Your task to perform on an android device: Open Youtube and go to "Your channel" Image 0: 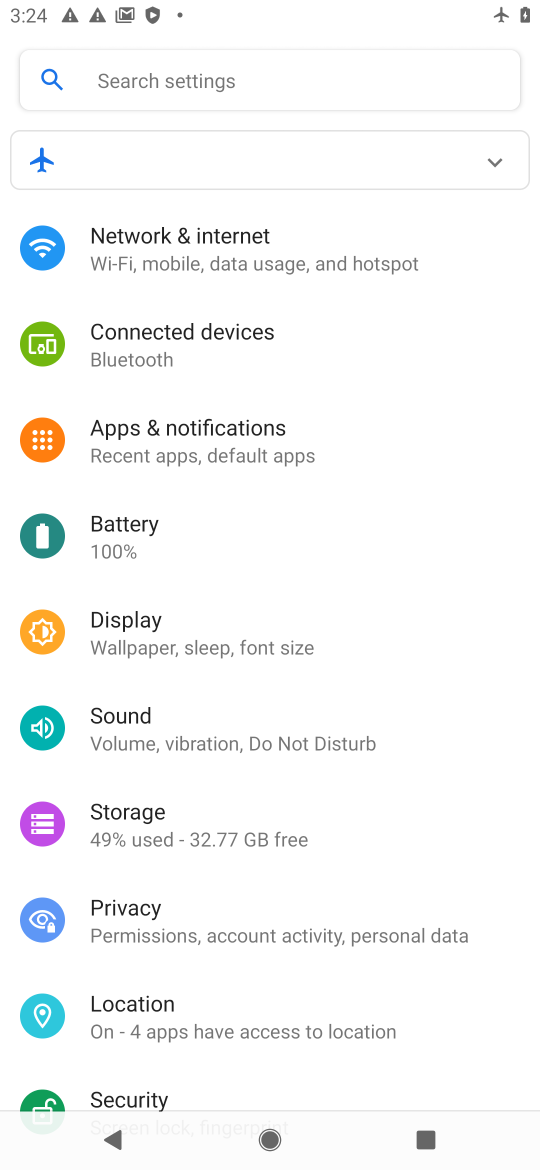
Step 0: press home button
Your task to perform on an android device: Open Youtube and go to "Your channel" Image 1: 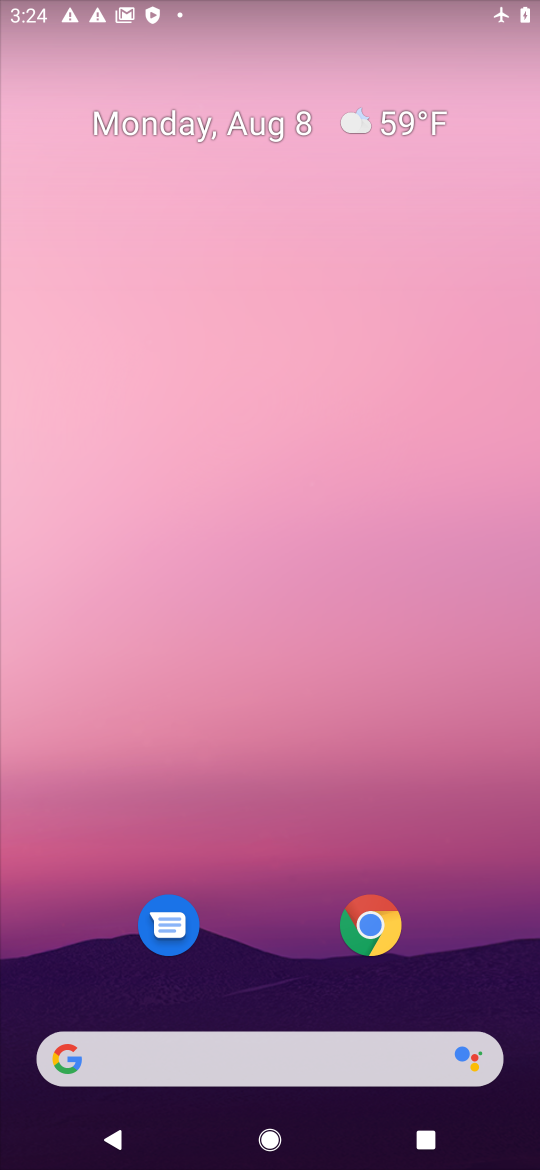
Step 1: drag from (261, 1022) to (241, 201)
Your task to perform on an android device: Open Youtube and go to "Your channel" Image 2: 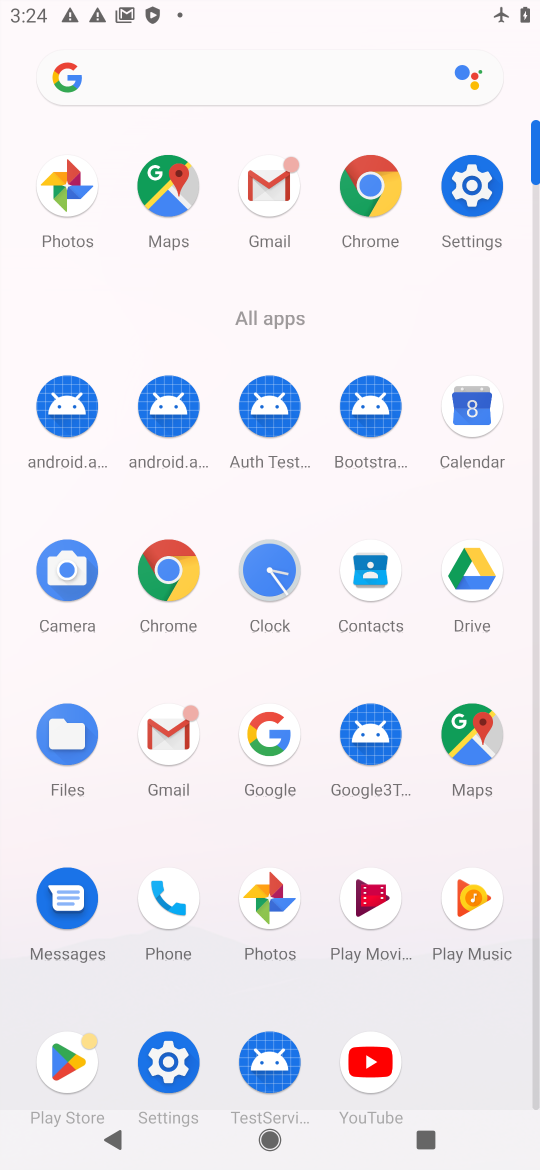
Step 2: click (361, 1058)
Your task to perform on an android device: Open Youtube and go to "Your channel" Image 3: 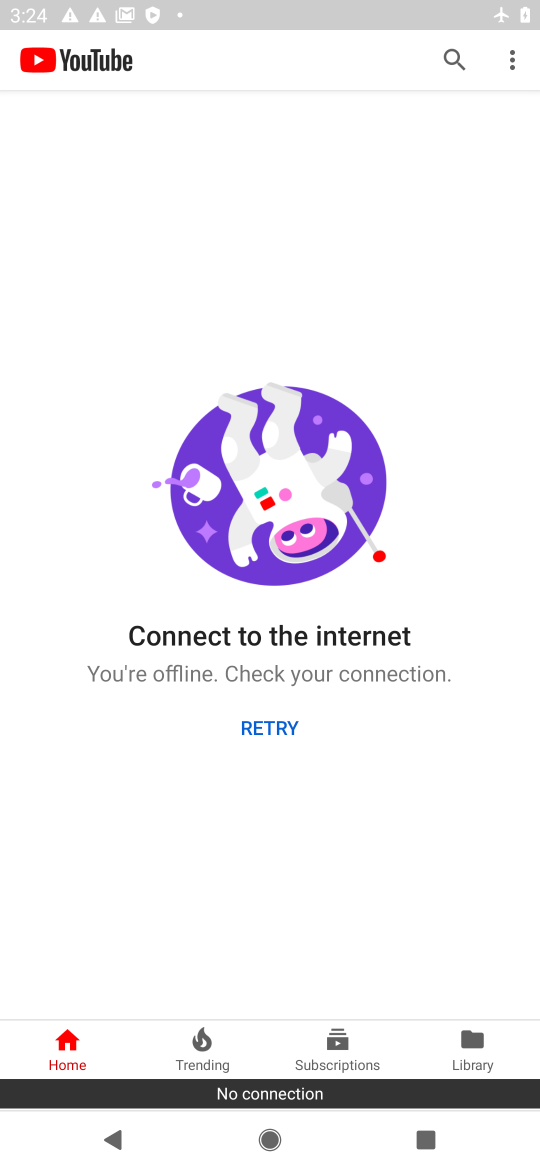
Step 3: click (332, 1056)
Your task to perform on an android device: Open Youtube and go to "Your channel" Image 4: 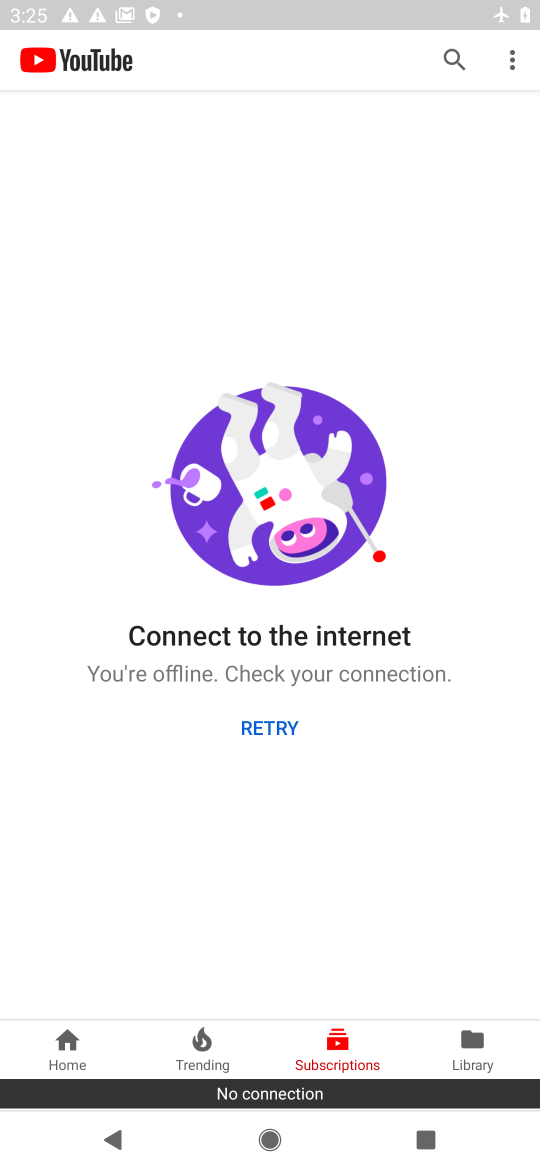
Step 4: task complete